Your task to perform on an android device: allow cookies in the chrome app Image 0: 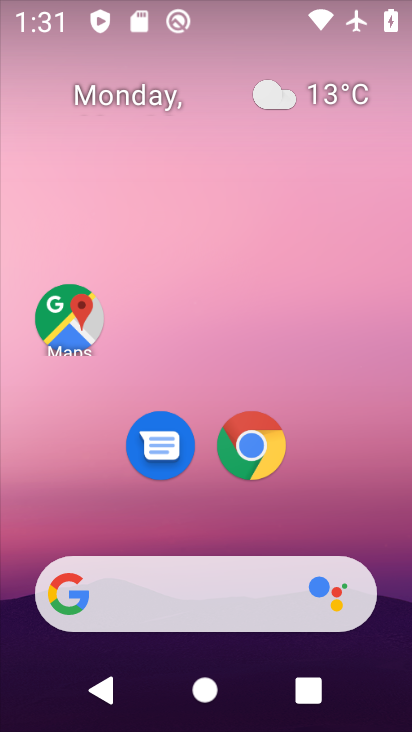
Step 0: drag from (403, 616) to (325, 119)
Your task to perform on an android device: allow cookies in the chrome app Image 1: 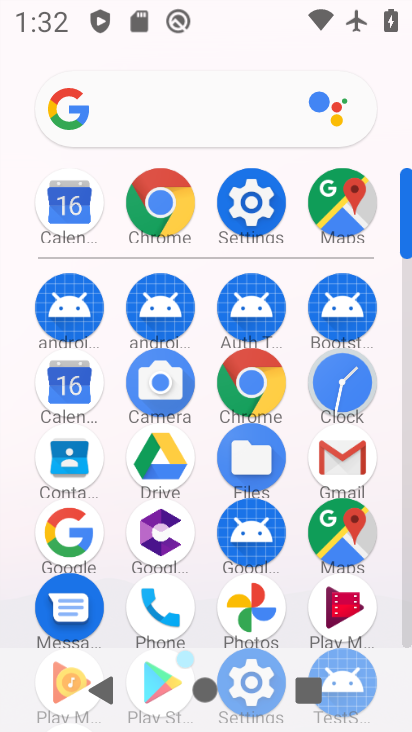
Step 1: click (265, 382)
Your task to perform on an android device: allow cookies in the chrome app Image 2: 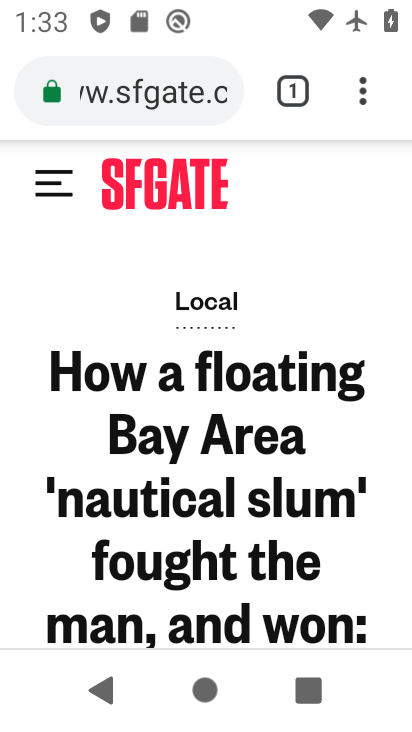
Step 2: press back button
Your task to perform on an android device: allow cookies in the chrome app Image 3: 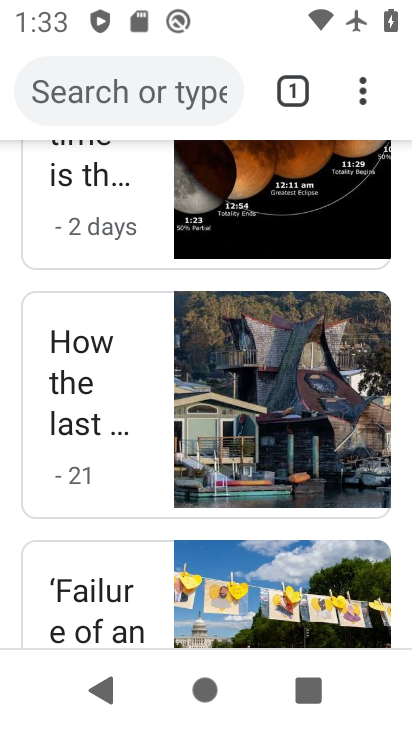
Step 3: click (361, 92)
Your task to perform on an android device: allow cookies in the chrome app Image 4: 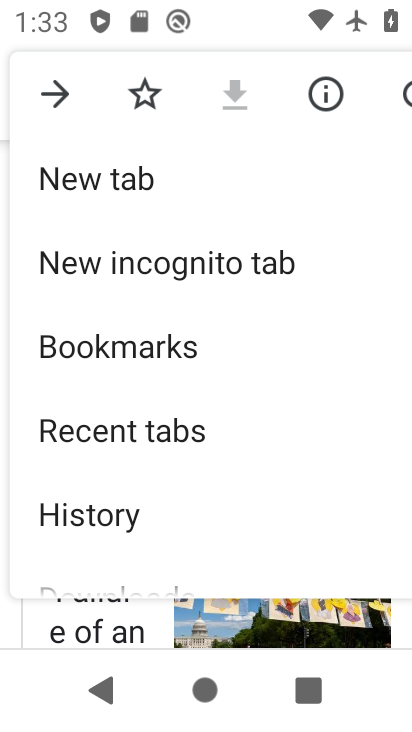
Step 4: click (125, 519)
Your task to perform on an android device: allow cookies in the chrome app Image 5: 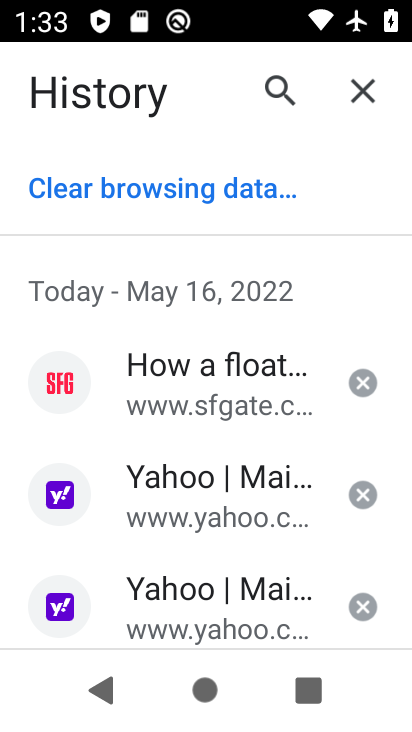
Step 5: click (158, 168)
Your task to perform on an android device: allow cookies in the chrome app Image 6: 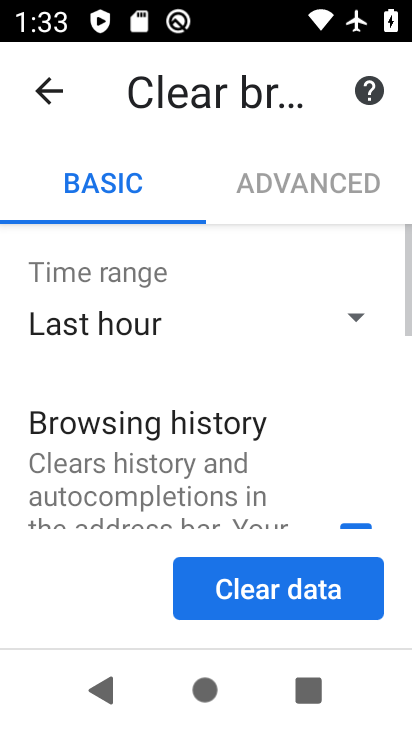
Step 6: task complete